Your task to perform on an android device: Open calendar and show me the first week of next month Image 0: 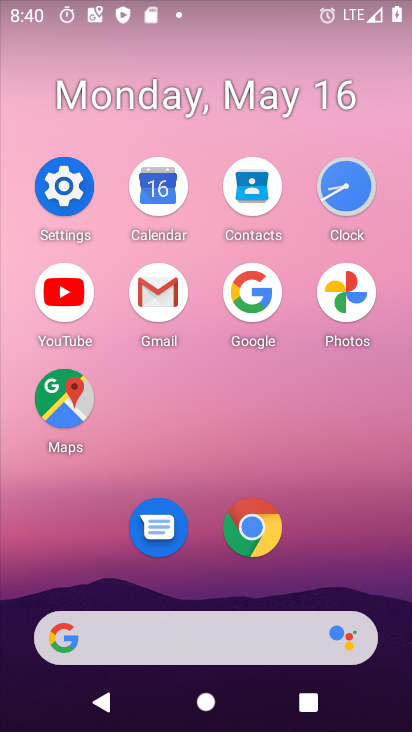
Step 0: click (162, 189)
Your task to perform on an android device: Open calendar and show me the first week of next month Image 1: 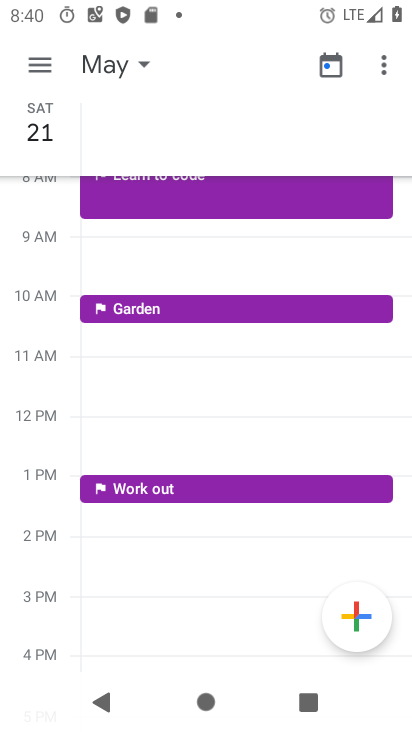
Step 1: click (39, 74)
Your task to perform on an android device: Open calendar and show me the first week of next month Image 2: 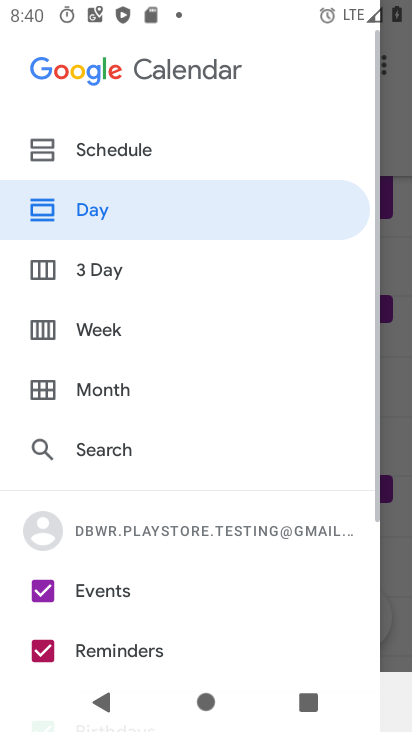
Step 2: click (399, 384)
Your task to perform on an android device: Open calendar and show me the first week of next month Image 3: 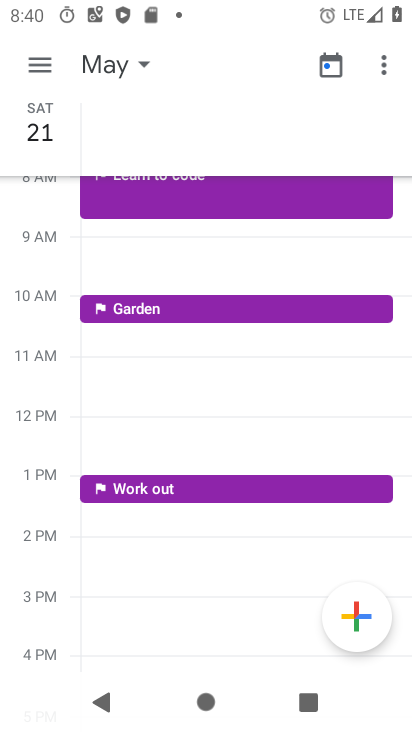
Step 3: click (129, 58)
Your task to perform on an android device: Open calendar and show me the first week of next month Image 4: 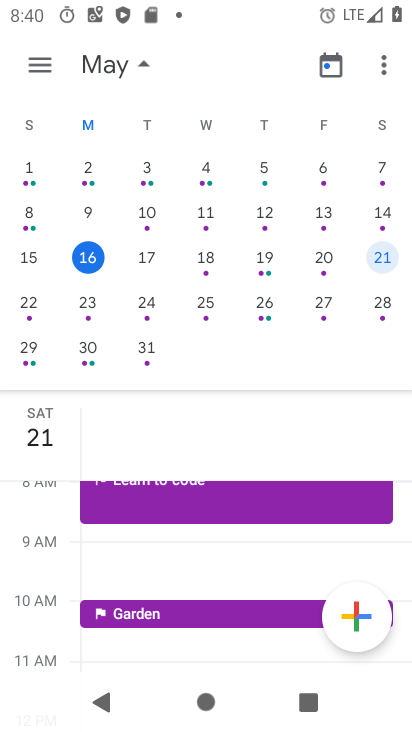
Step 4: drag from (391, 209) to (34, 253)
Your task to perform on an android device: Open calendar and show me the first week of next month Image 5: 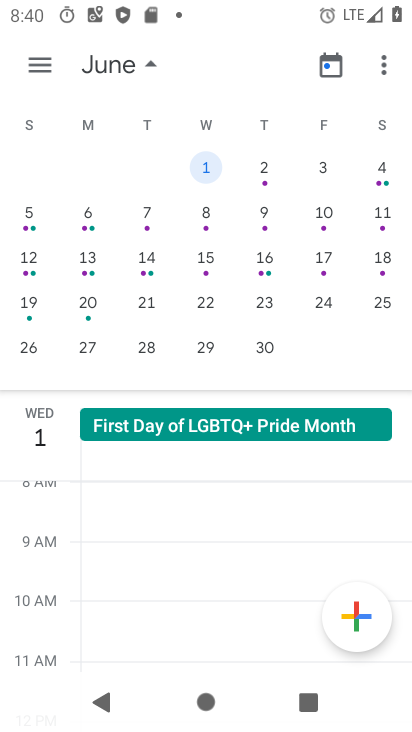
Step 5: click (33, 59)
Your task to perform on an android device: Open calendar and show me the first week of next month Image 6: 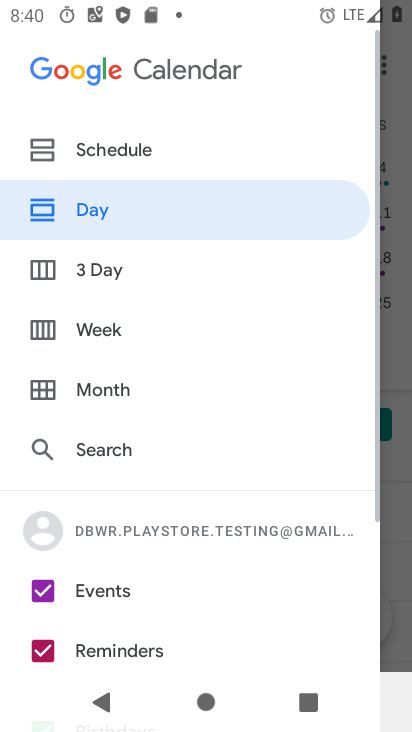
Step 6: click (124, 341)
Your task to perform on an android device: Open calendar and show me the first week of next month Image 7: 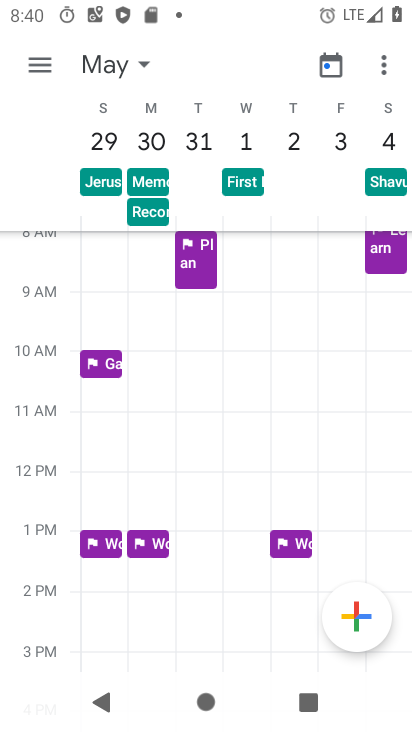
Step 7: task complete